Your task to perform on an android device: turn smart compose on in the gmail app Image 0: 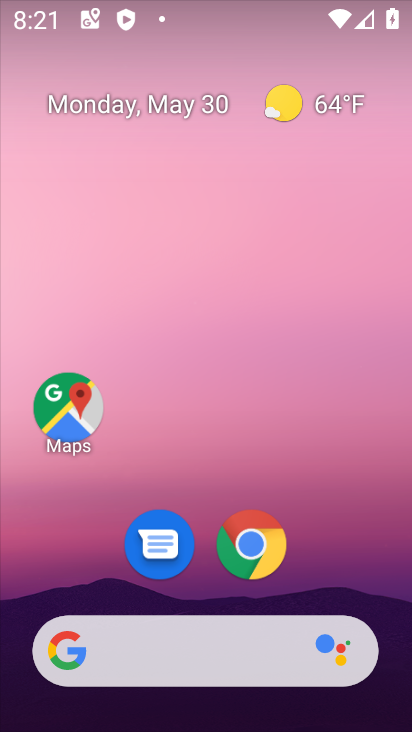
Step 0: drag from (219, 612) to (51, 449)
Your task to perform on an android device: turn smart compose on in the gmail app Image 1: 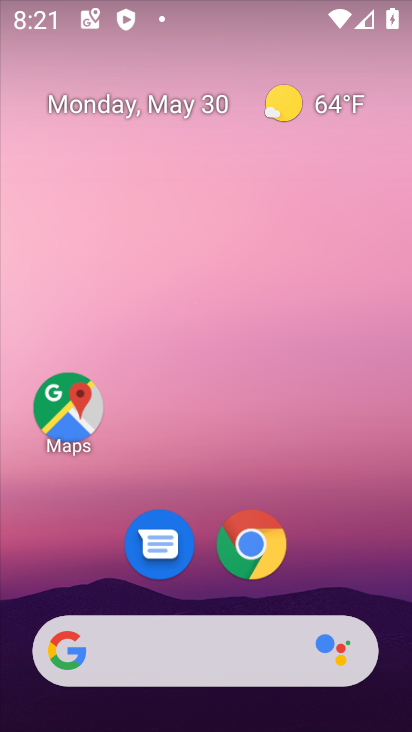
Step 1: drag from (191, 605) to (356, 13)
Your task to perform on an android device: turn smart compose on in the gmail app Image 2: 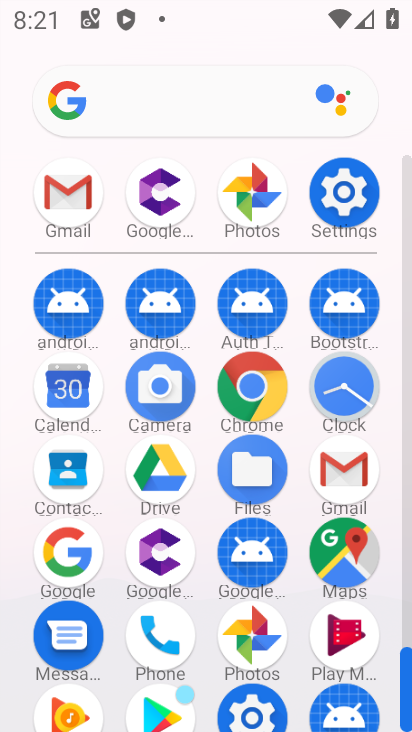
Step 2: click (357, 473)
Your task to perform on an android device: turn smart compose on in the gmail app Image 3: 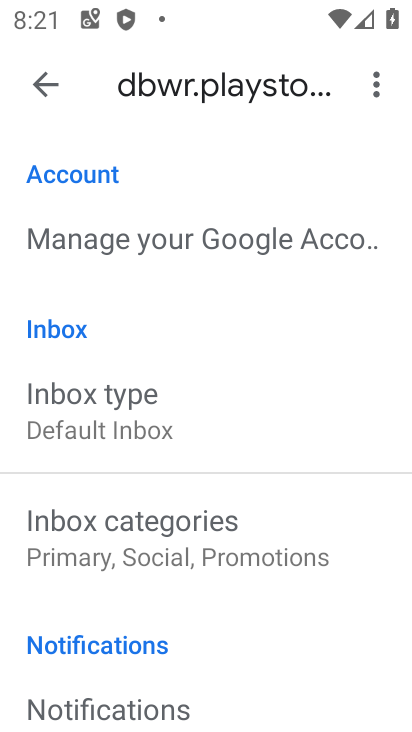
Step 3: task complete